Your task to perform on an android device: View the shopping cart on amazon.com. Search for usb-b on amazon.com, select the first entry, and add it to the cart. Image 0: 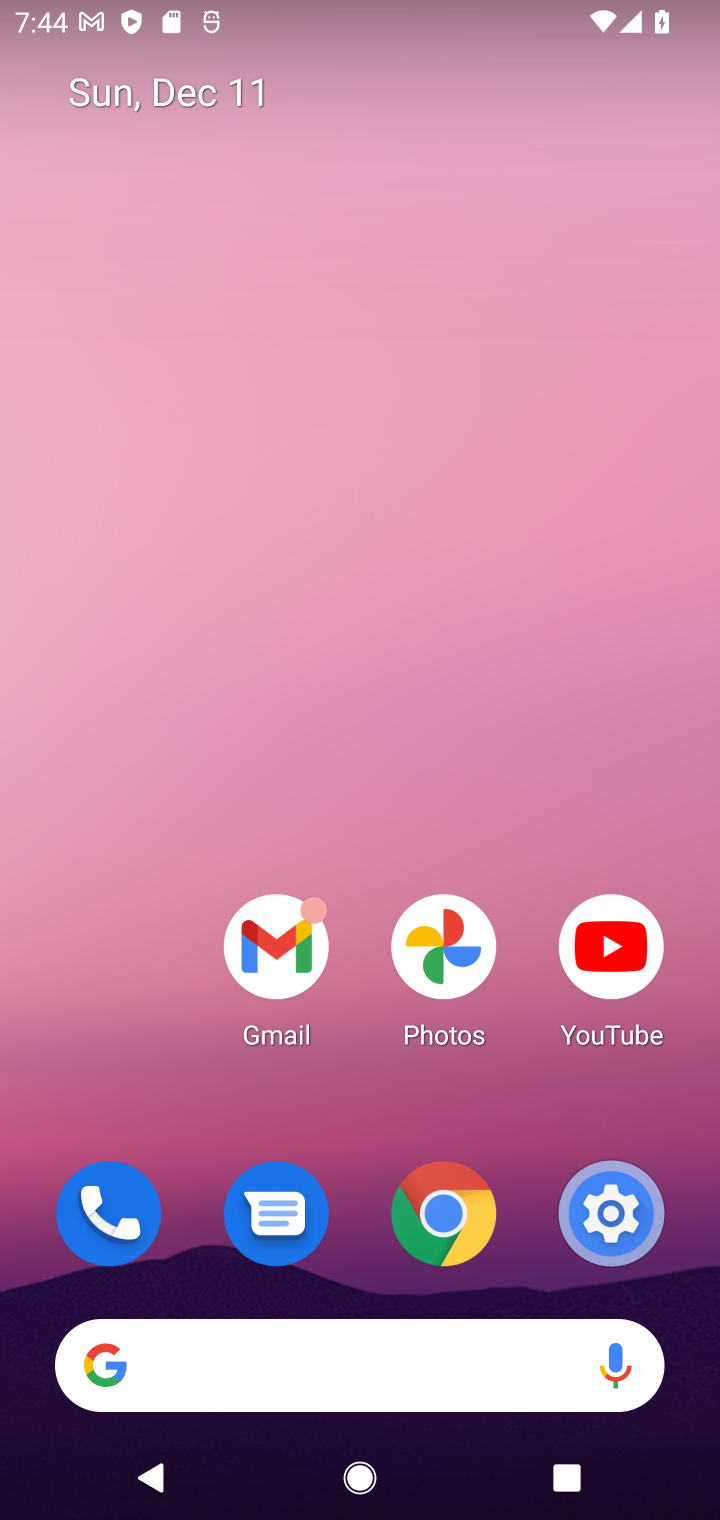
Step 0: click (511, 1351)
Your task to perform on an android device: View the shopping cart on amazon.com. Search for usb-b on amazon.com, select the first entry, and add it to the cart. Image 1: 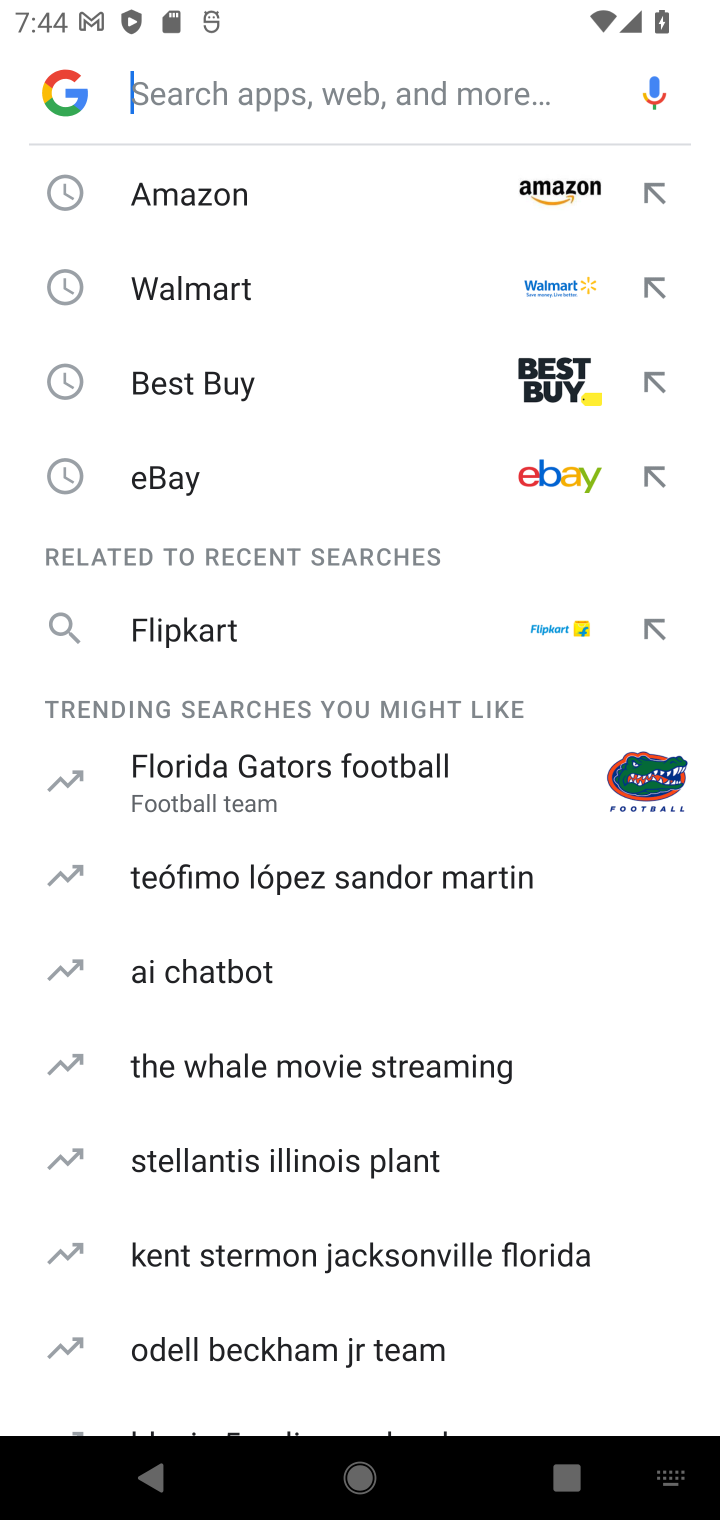
Step 1: type "ama"
Your task to perform on an android device: View the shopping cart on amazon.com. Search for usb-b on amazon.com, select the first entry, and add it to the cart. Image 2: 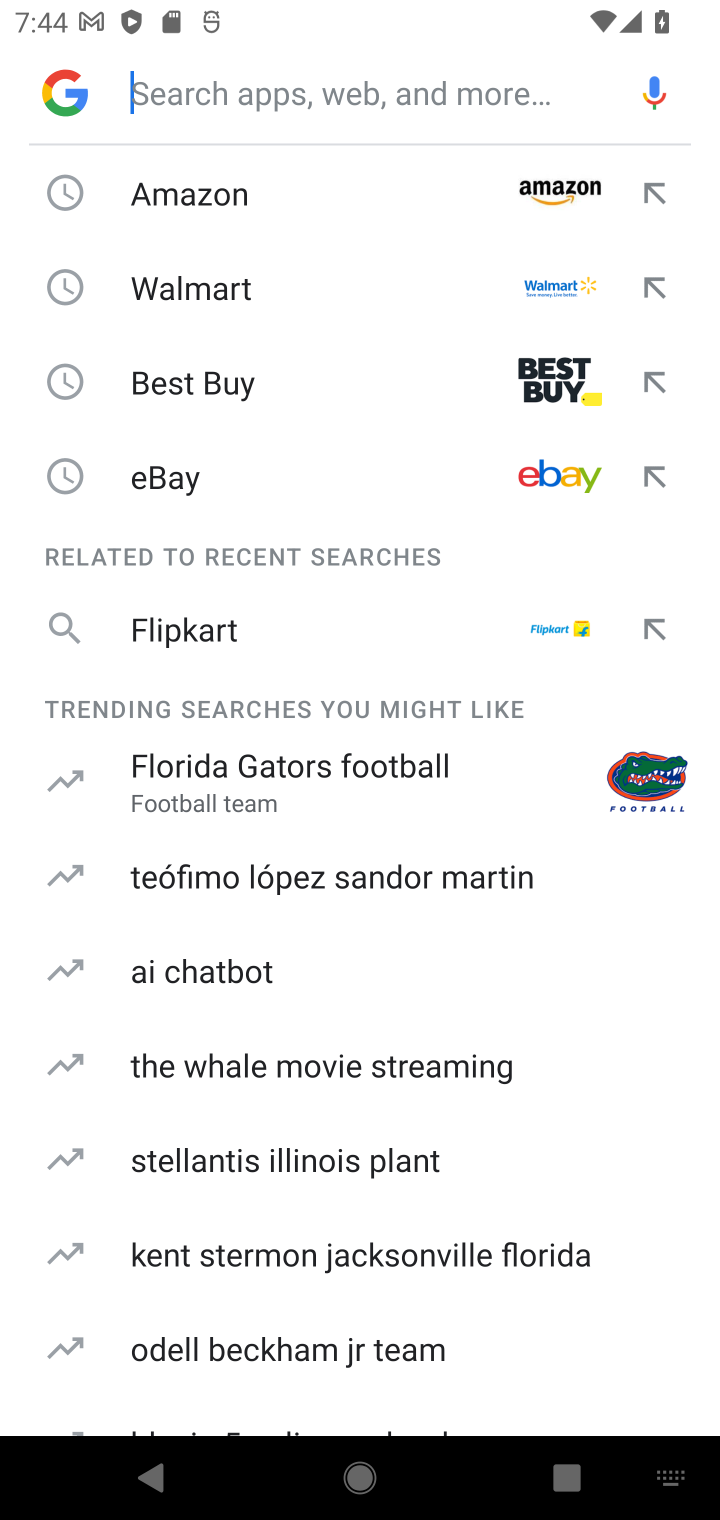
Step 2: click (236, 221)
Your task to perform on an android device: View the shopping cart on amazon.com. Search for usb-b on amazon.com, select the first entry, and add it to the cart. Image 3: 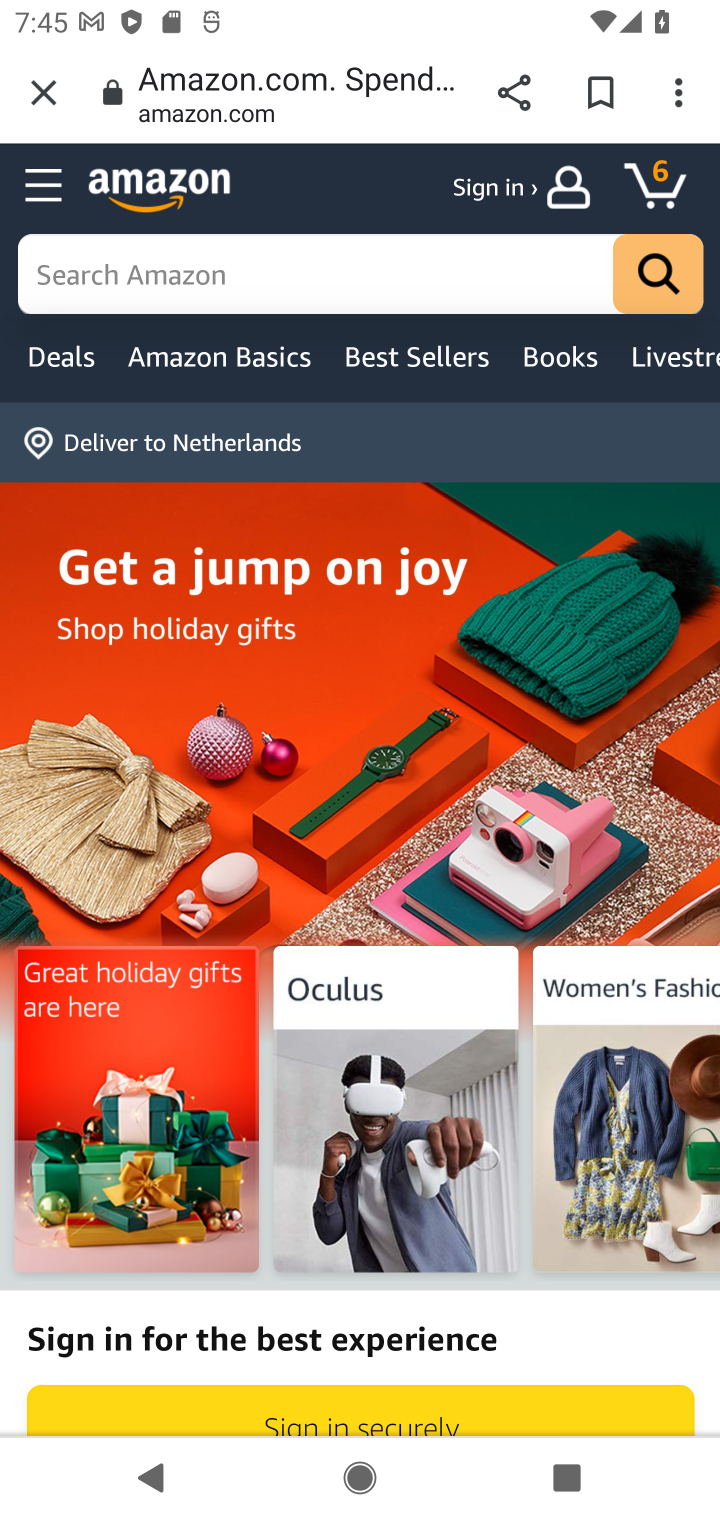
Step 3: click (255, 260)
Your task to perform on an android device: View the shopping cart on amazon.com. Search for usb-b on amazon.com, select the first entry, and add it to the cart. Image 4: 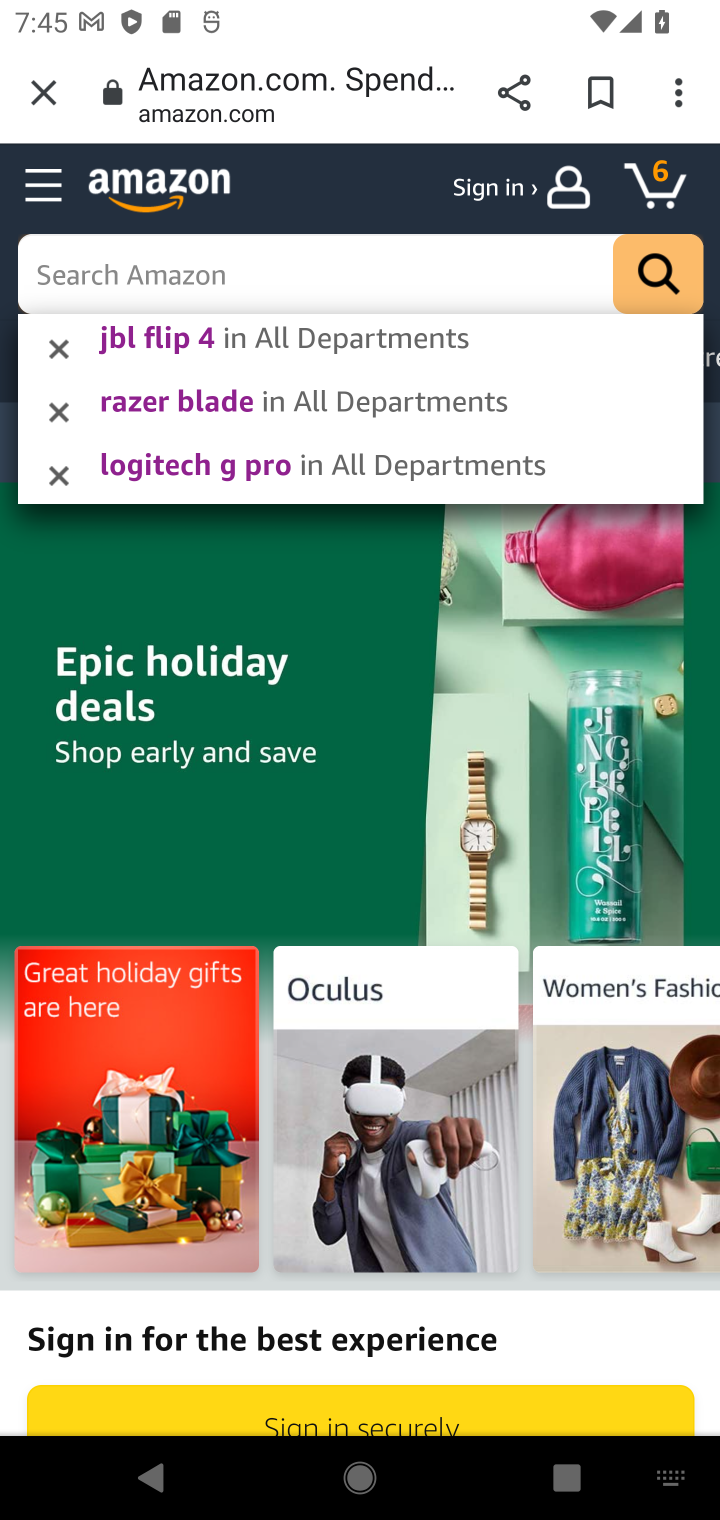
Step 4: type "usb-b"
Your task to perform on an android device: View the shopping cart on amazon.com. Search for usb-b on amazon.com, select the first entry, and add it to the cart. Image 5: 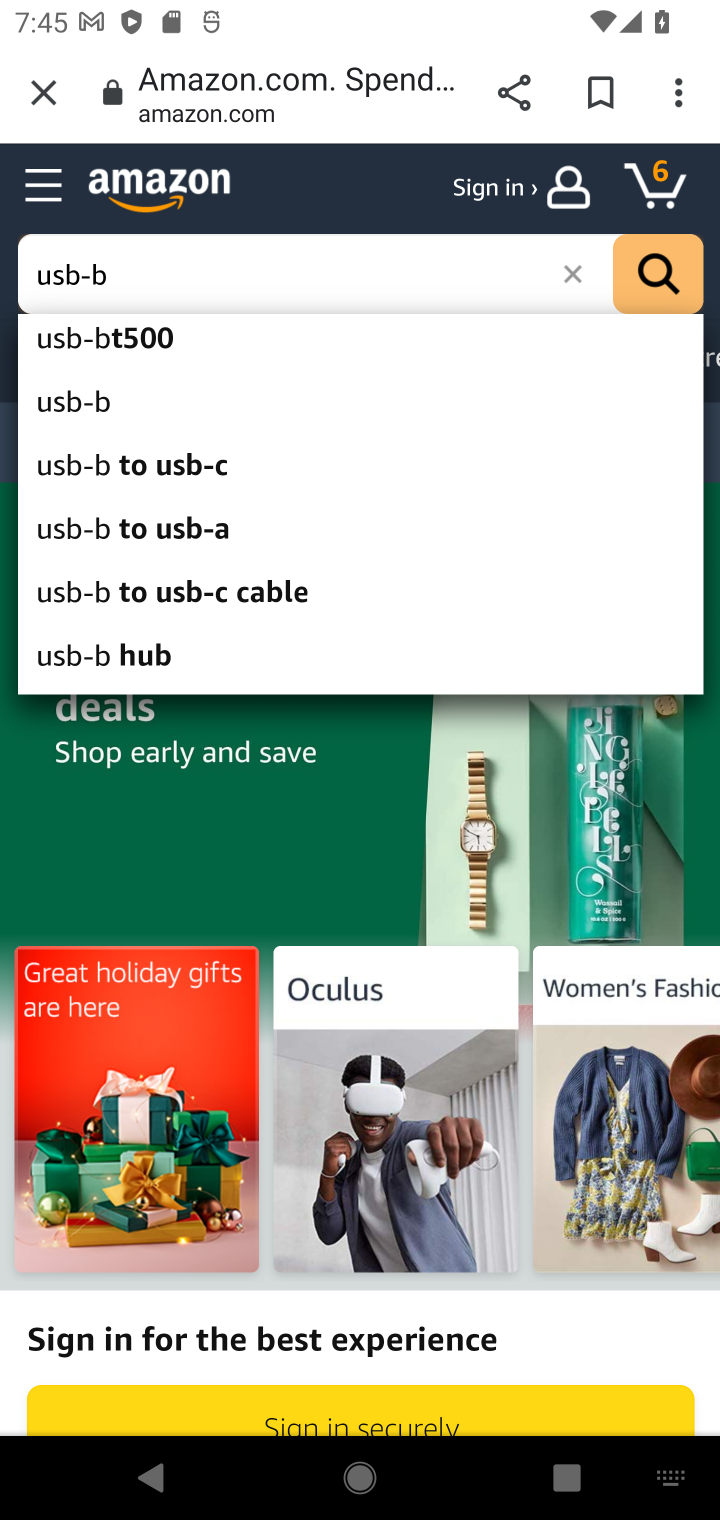
Step 5: click (131, 406)
Your task to perform on an android device: View the shopping cart on amazon.com. Search for usb-b on amazon.com, select the first entry, and add it to the cart. Image 6: 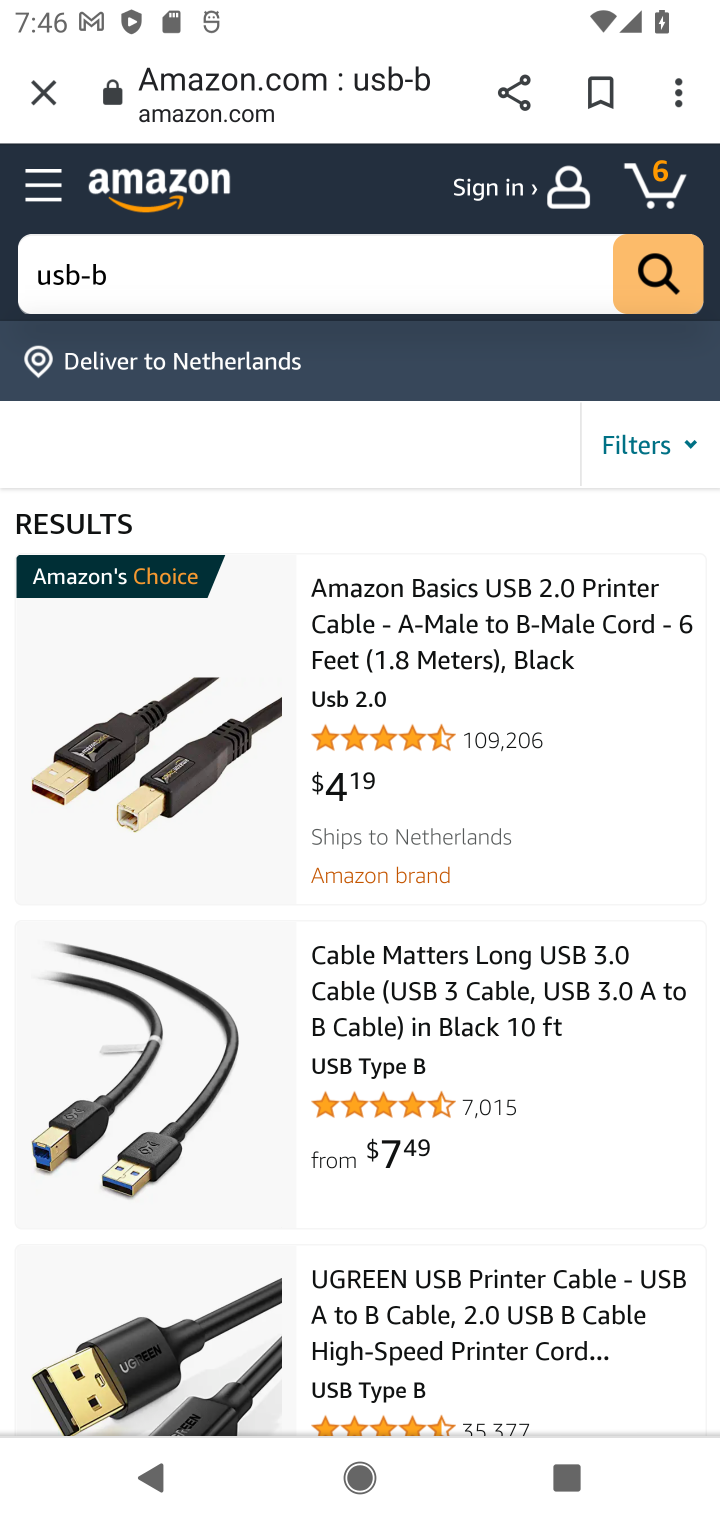
Step 6: click (472, 644)
Your task to perform on an android device: View the shopping cart on amazon.com. Search for usb-b on amazon.com, select the first entry, and add it to the cart. Image 7: 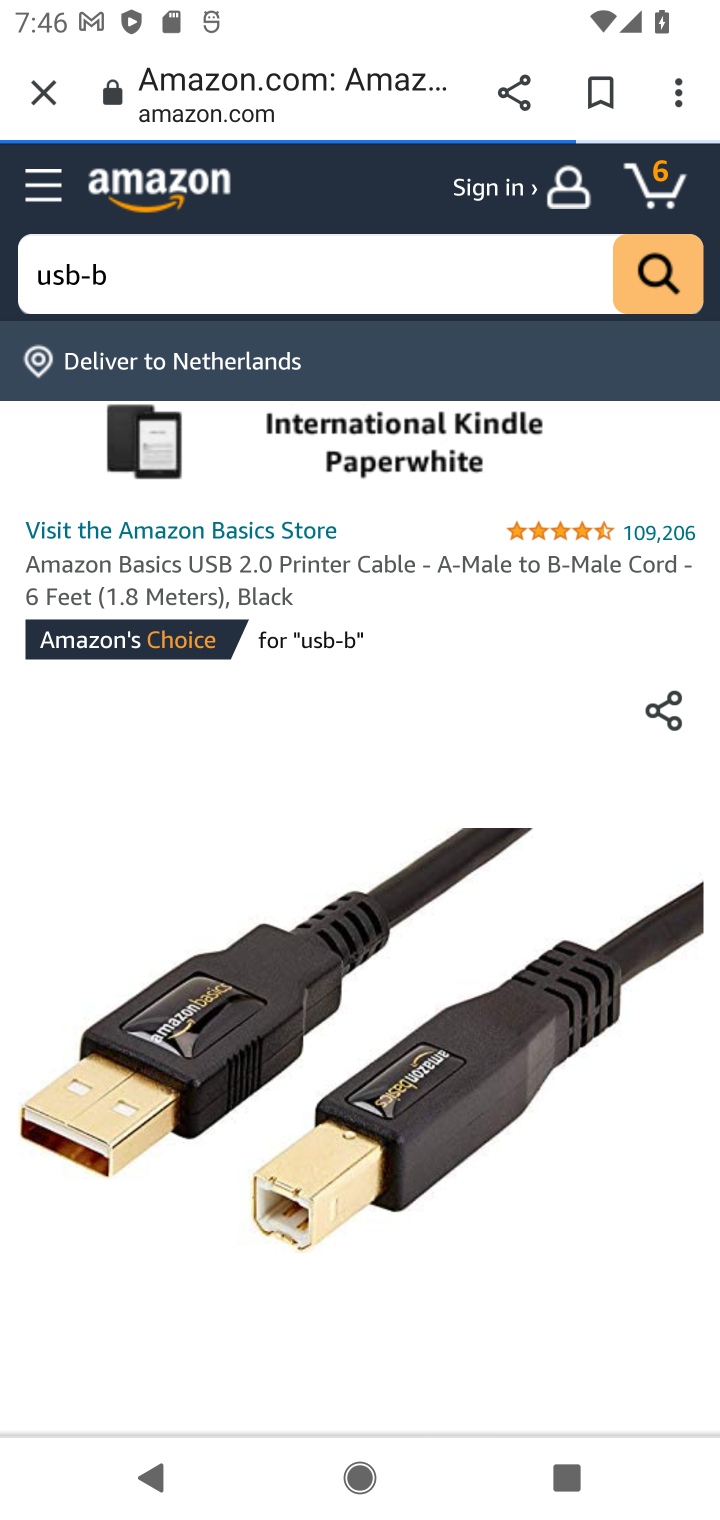
Step 7: task complete